Your task to perform on an android device: toggle javascript in the chrome app Image 0: 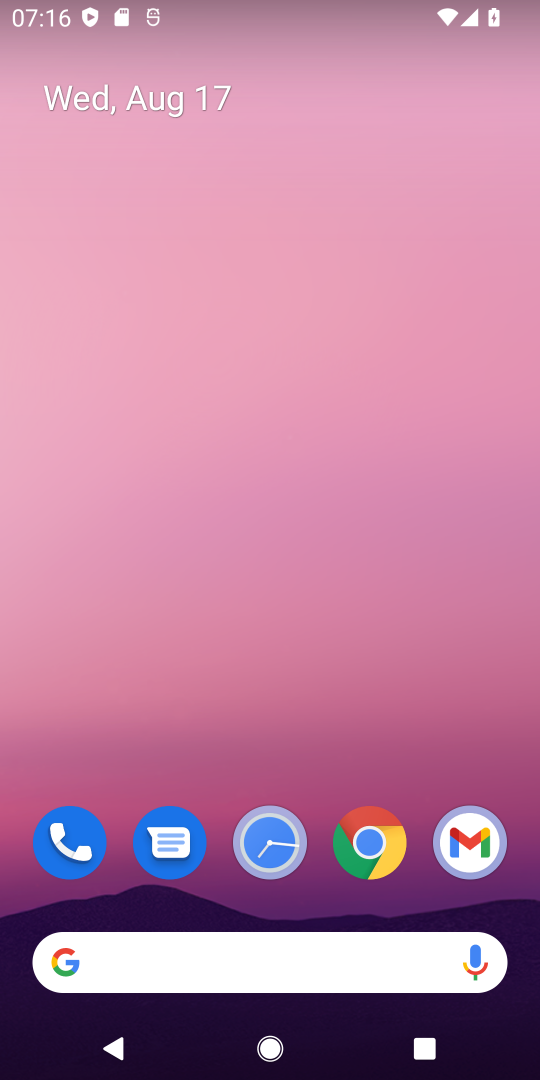
Step 0: click (378, 846)
Your task to perform on an android device: toggle javascript in the chrome app Image 1: 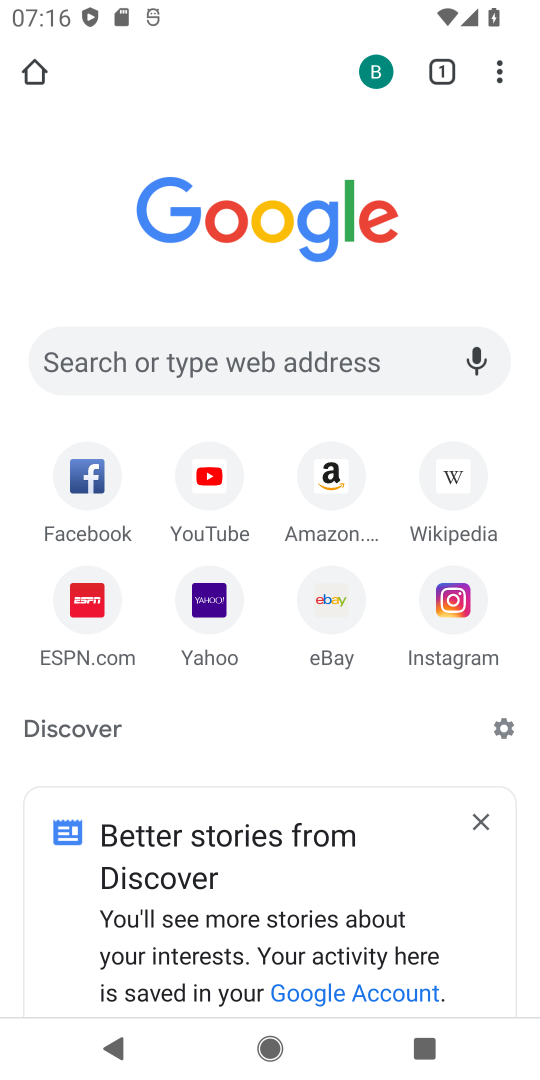
Step 1: click (499, 62)
Your task to perform on an android device: toggle javascript in the chrome app Image 2: 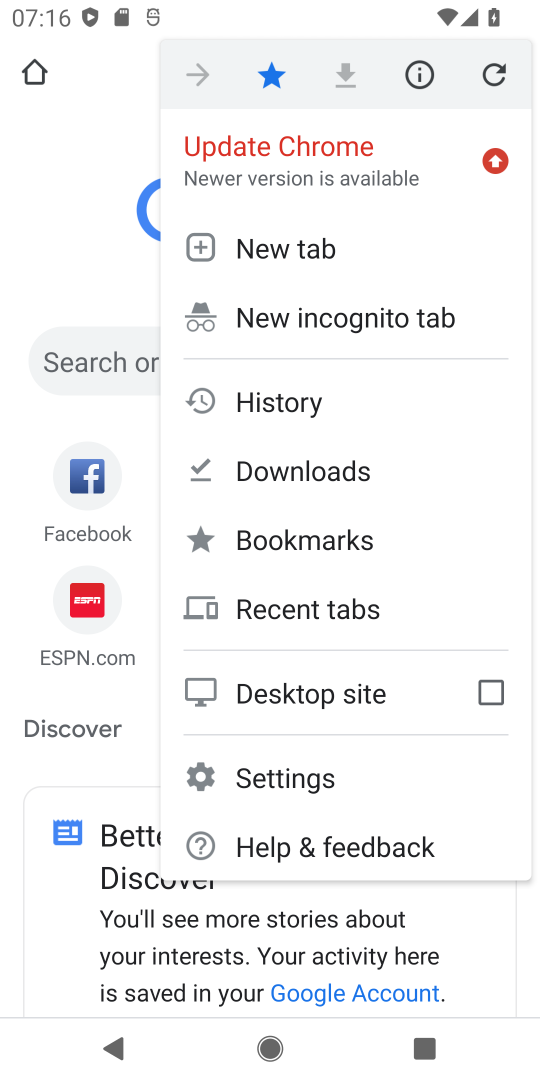
Step 2: click (311, 779)
Your task to perform on an android device: toggle javascript in the chrome app Image 3: 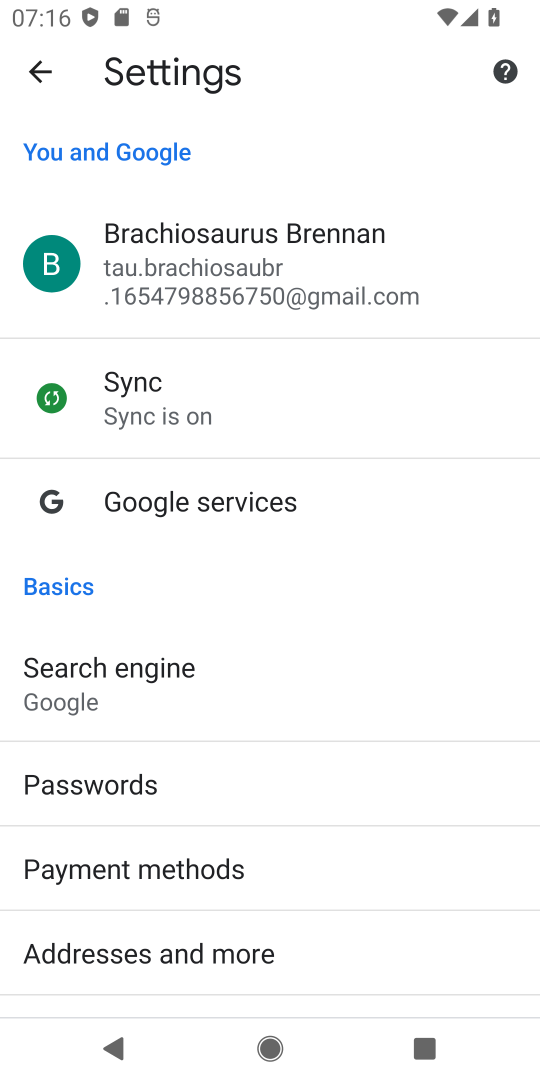
Step 3: drag from (319, 760) to (414, 12)
Your task to perform on an android device: toggle javascript in the chrome app Image 4: 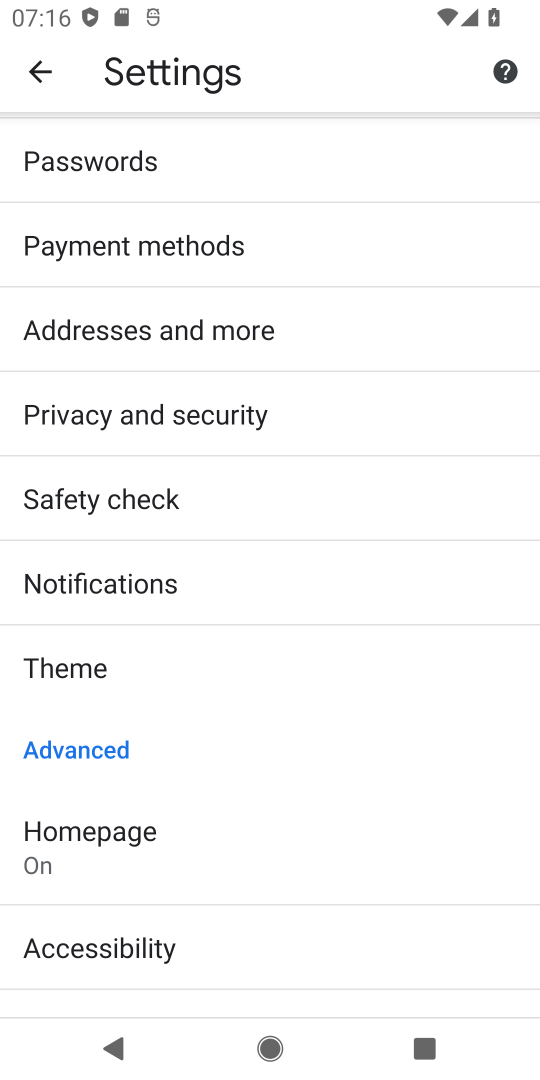
Step 4: drag from (233, 888) to (295, 28)
Your task to perform on an android device: toggle javascript in the chrome app Image 5: 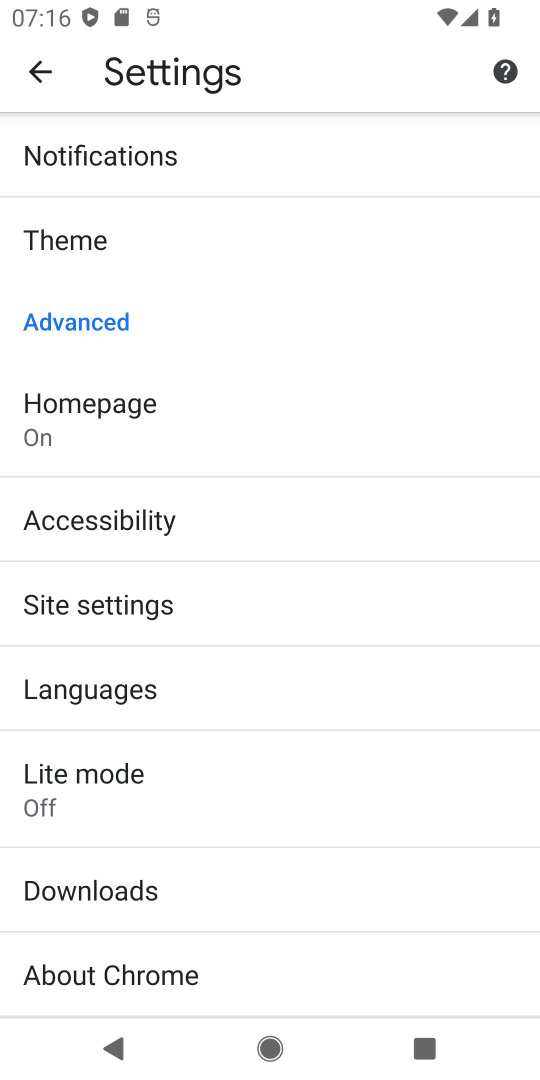
Step 5: click (148, 603)
Your task to perform on an android device: toggle javascript in the chrome app Image 6: 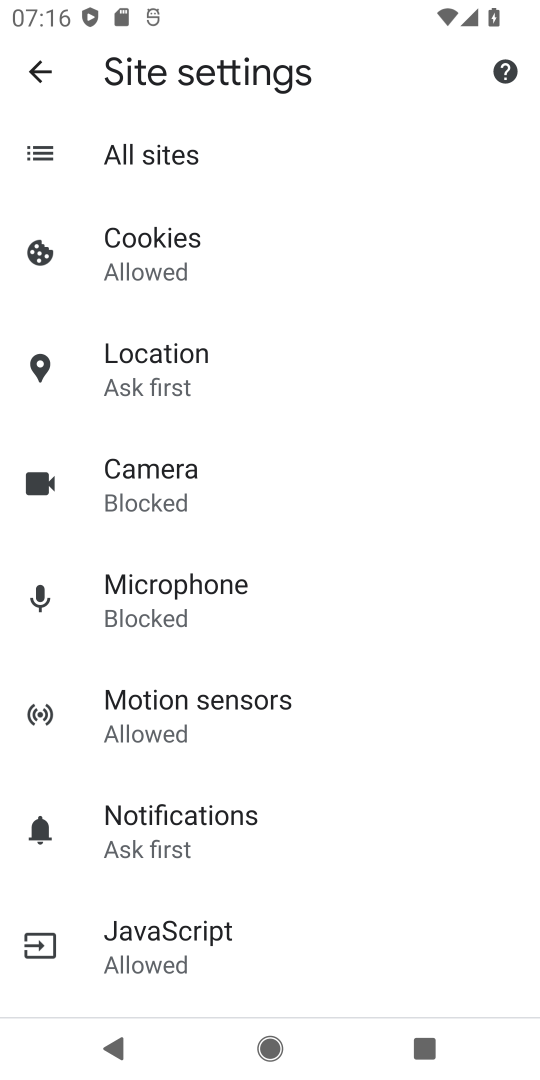
Step 6: click (210, 941)
Your task to perform on an android device: toggle javascript in the chrome app Image 7: 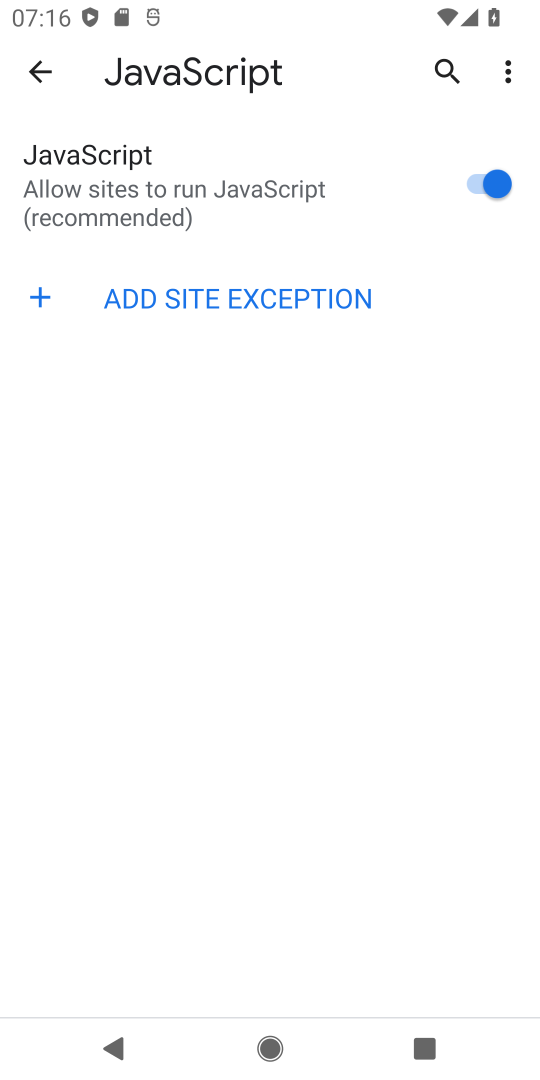
Step 7: click (490, 176)
Your task to perform on an android device: toggle javascript in the chrome app Image 8: 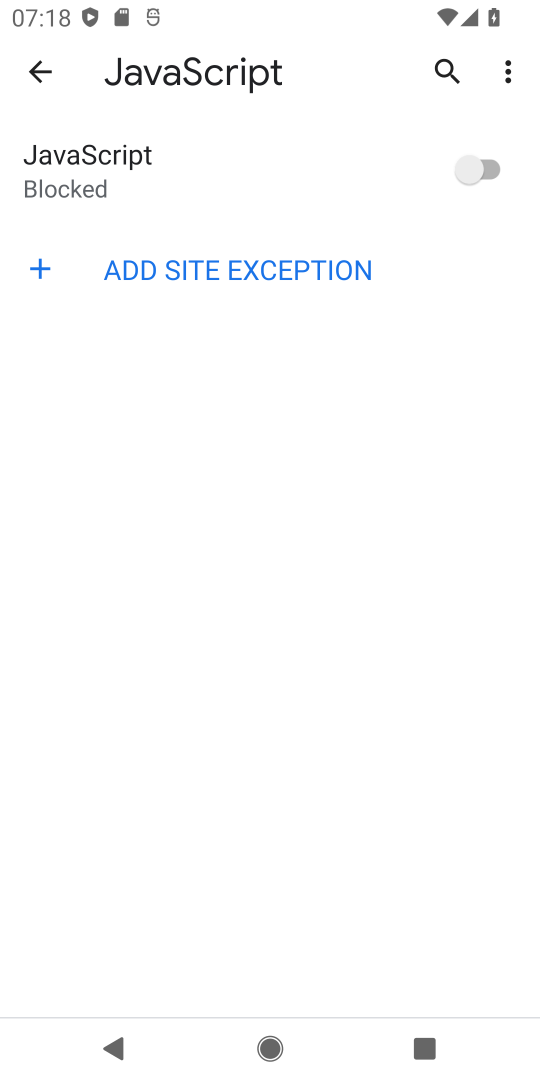
Step 8: task complete